Your task to perform on an android device: change timer sound Image 0: 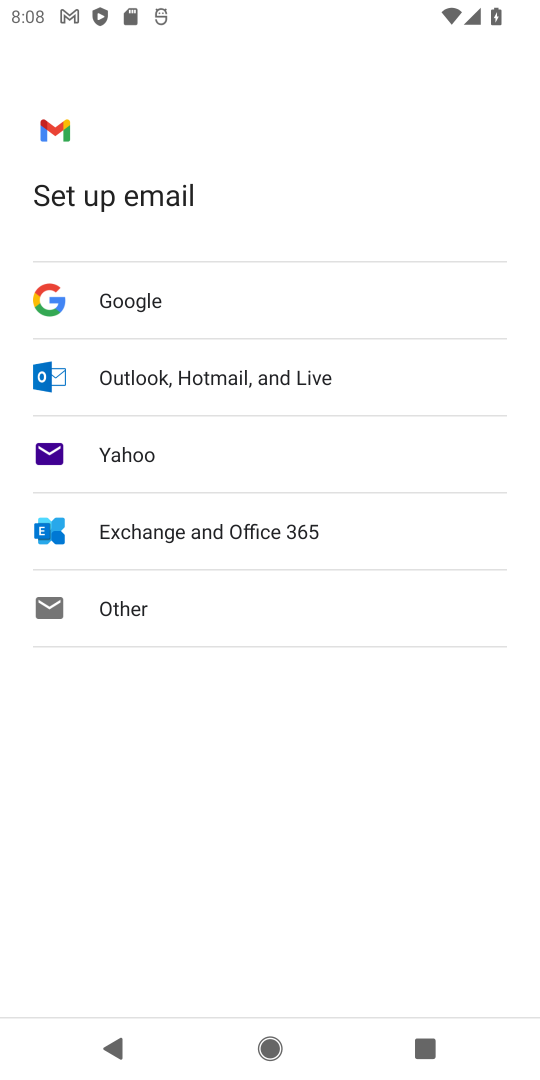
Step 0: press home button
Your task to perform on an android device: change timer sound Image 1: 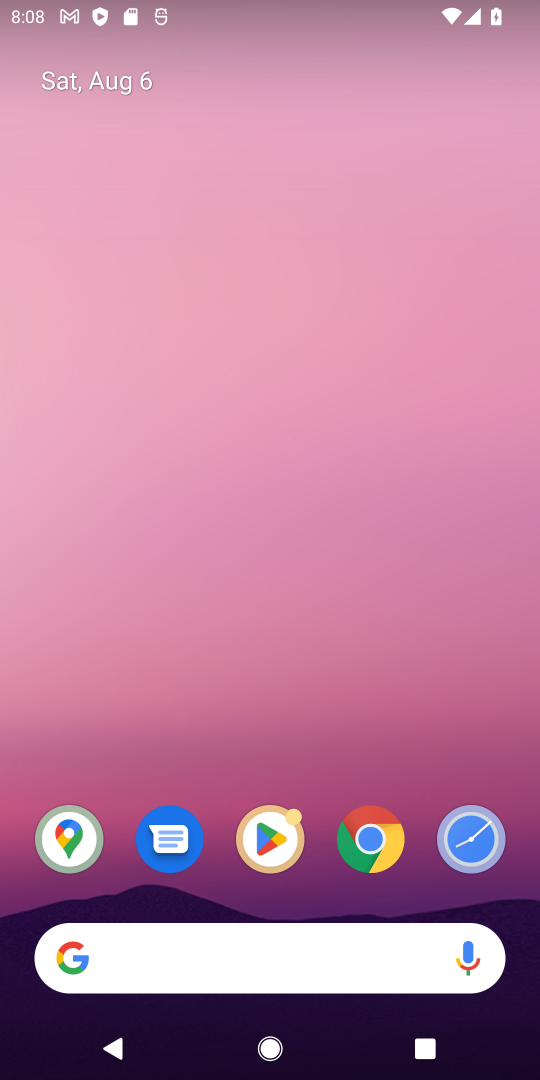
Step 1: drag from (317, 785) to (222, 86)
Your task to perform on an android device: change timer sound Image 2: 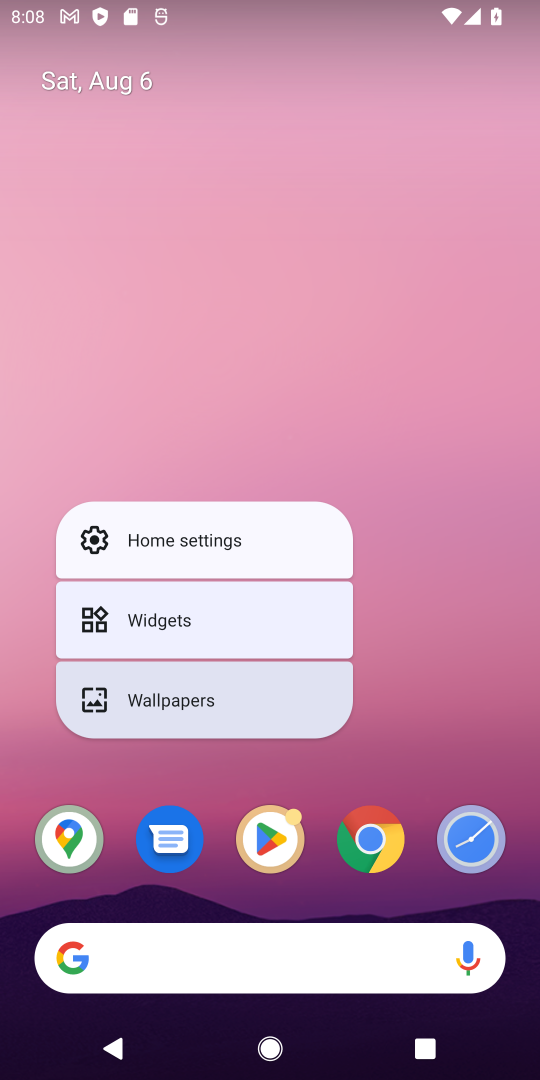
Step 2: drag from (300, 635) to (276, 90)
Your task to perform on an android device: change timer sound Image 3: 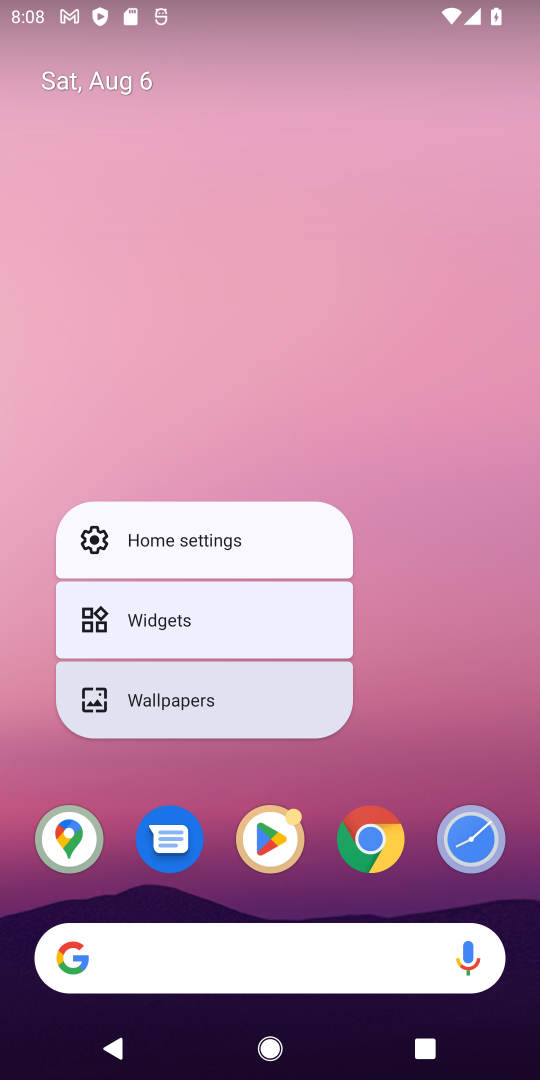
Step 3: click (472, 559)
Your task to perform on an android device: change timer sound Image 4: 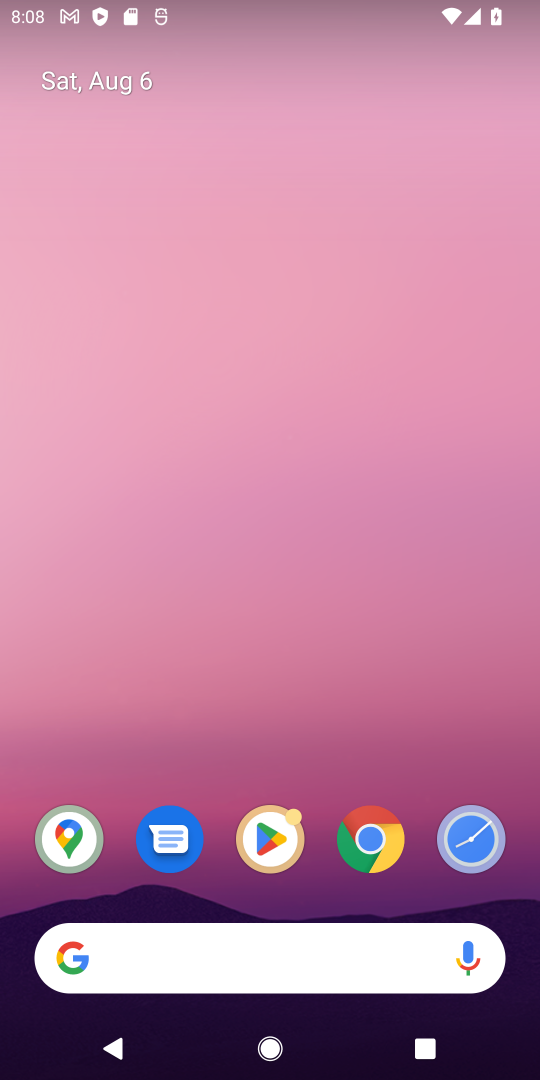
Step 4: drag from (422, 752) to (288, 19)
Your task to perform on an android device: change timer sound Image 5: 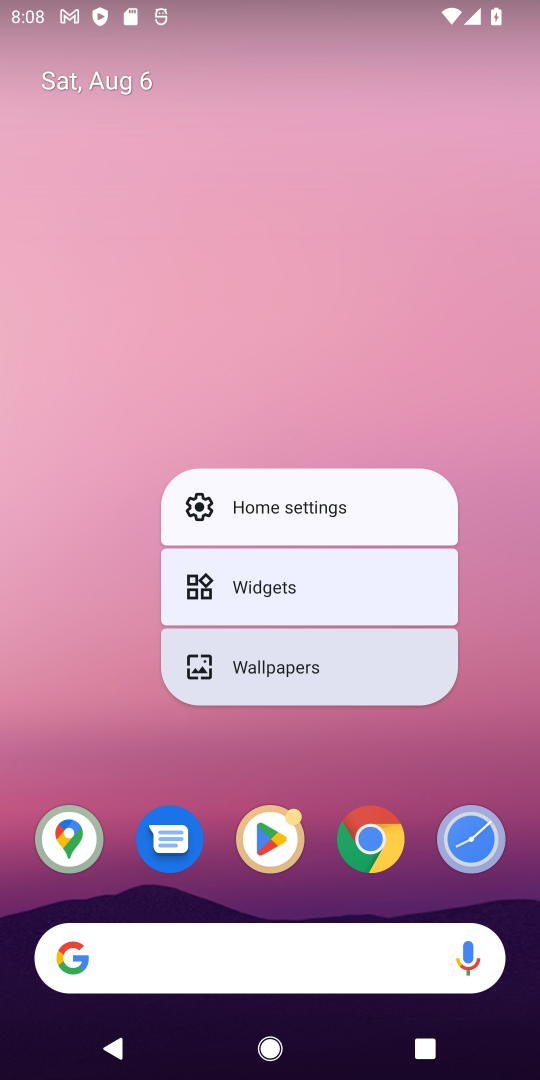
Step 5: click (315, 277)
Your task to perform on an android device: change timer sound Image 6: 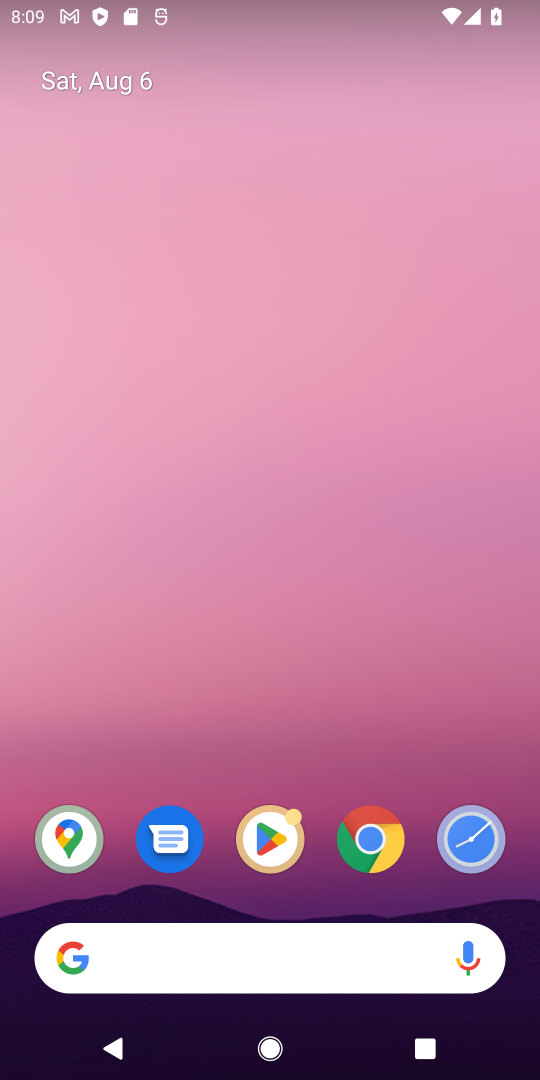
Step 6: drag from (356, 752) to (307, 27)
Your task to perform on an android device: change timer sound Image 7: 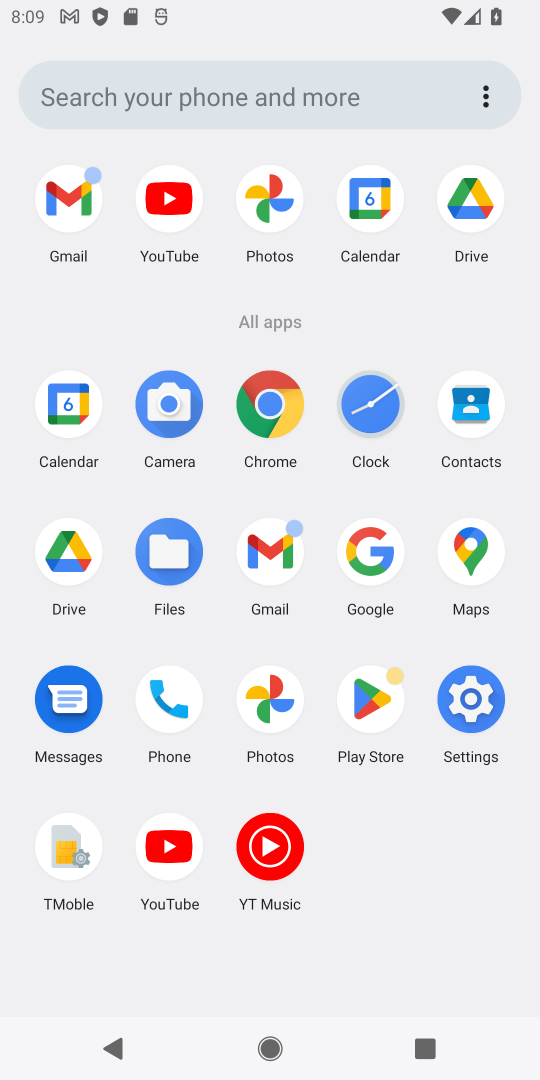
Step 7: click (373, 413)
Your task to perform on an android device: change timer sound Image 8: 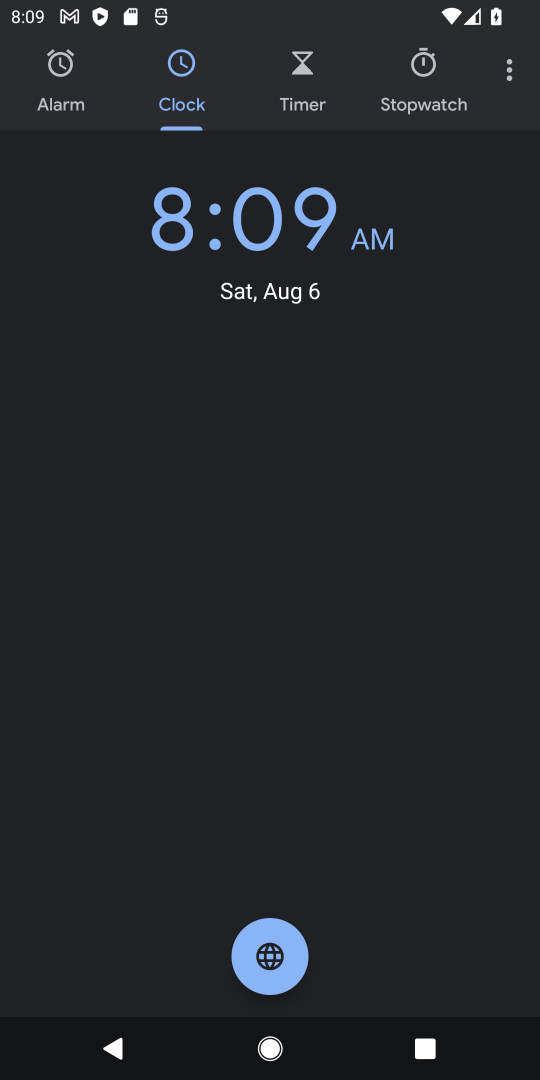
Step 8: click (508, 72)
Your task to perform on an android device: change timer sound Image 9: 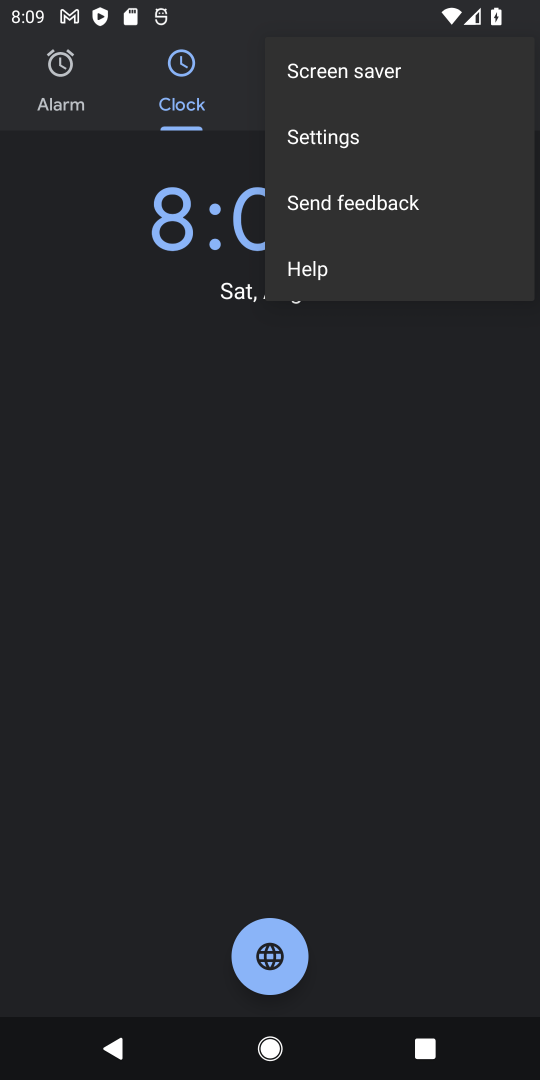
Step 9: click (330, 145)
Your task to perform on an android device: change timer sound Image 10: 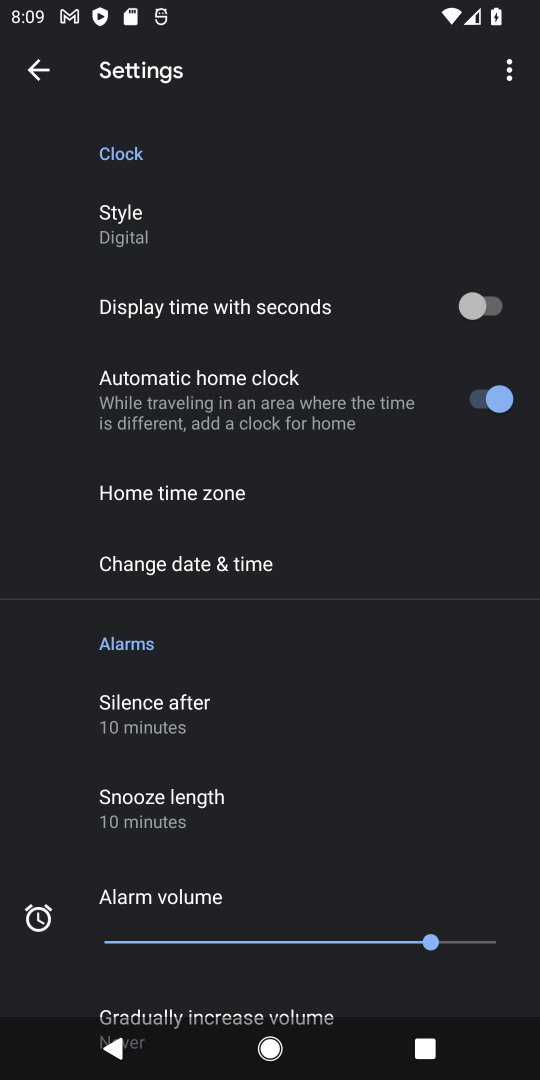
Step 10: drag from (346, 816) to (289, 153)
Your task to perform on an android device: change timer sound Image 11: 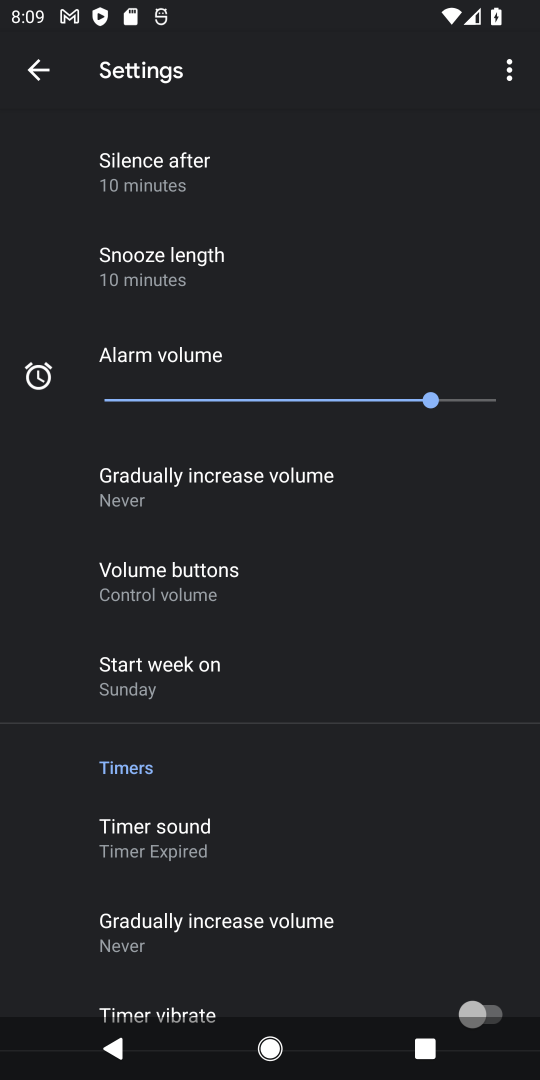
Step 11: click (273, 818)
Your task to perform on an android device: change timer sound Image 12: 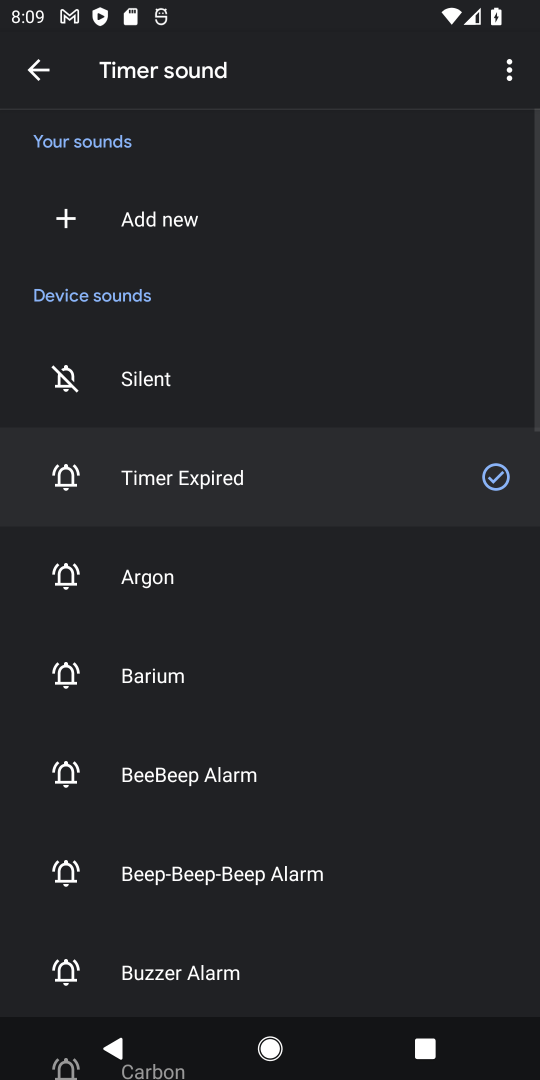
Step 12: click (188, 588)
Your task to perform on an android device: change timer sound Image 13: 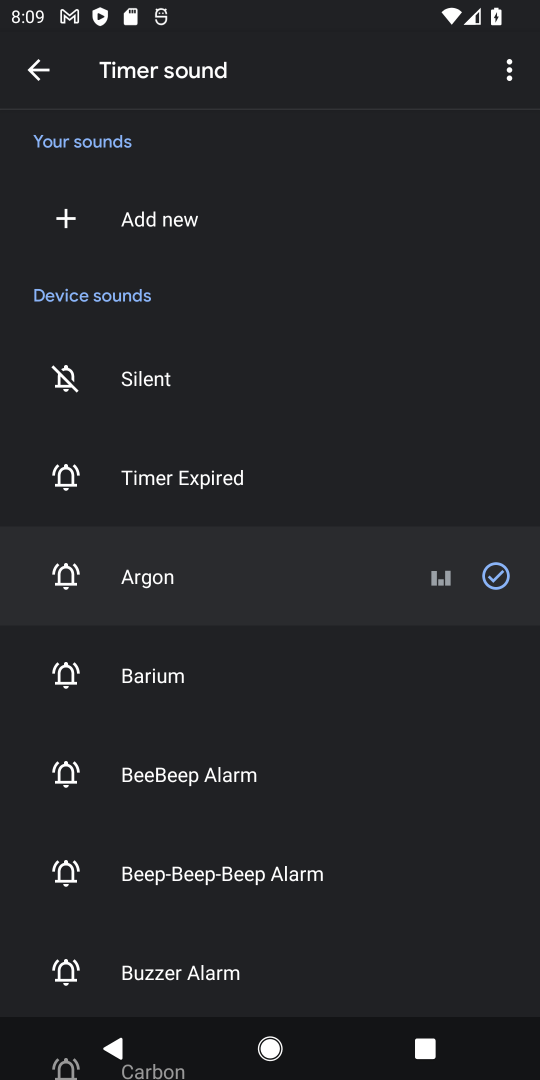
Step 13: task complete